Your task to perform on an android device: turn pop-ups on in chrome Image 0: 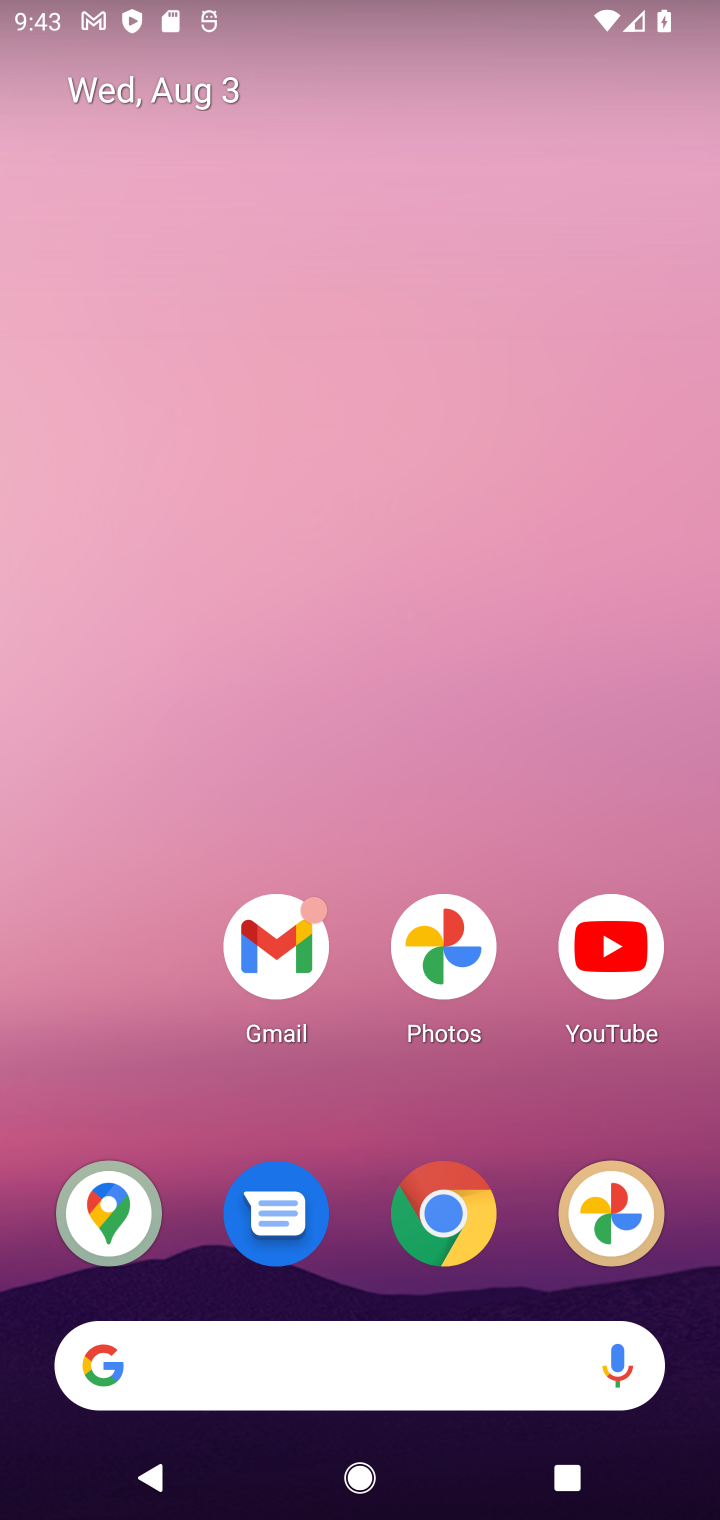
Step 0: click (457, 1229)
Your task to perform on an android device: turn pop-ups on in chrome Image 1: 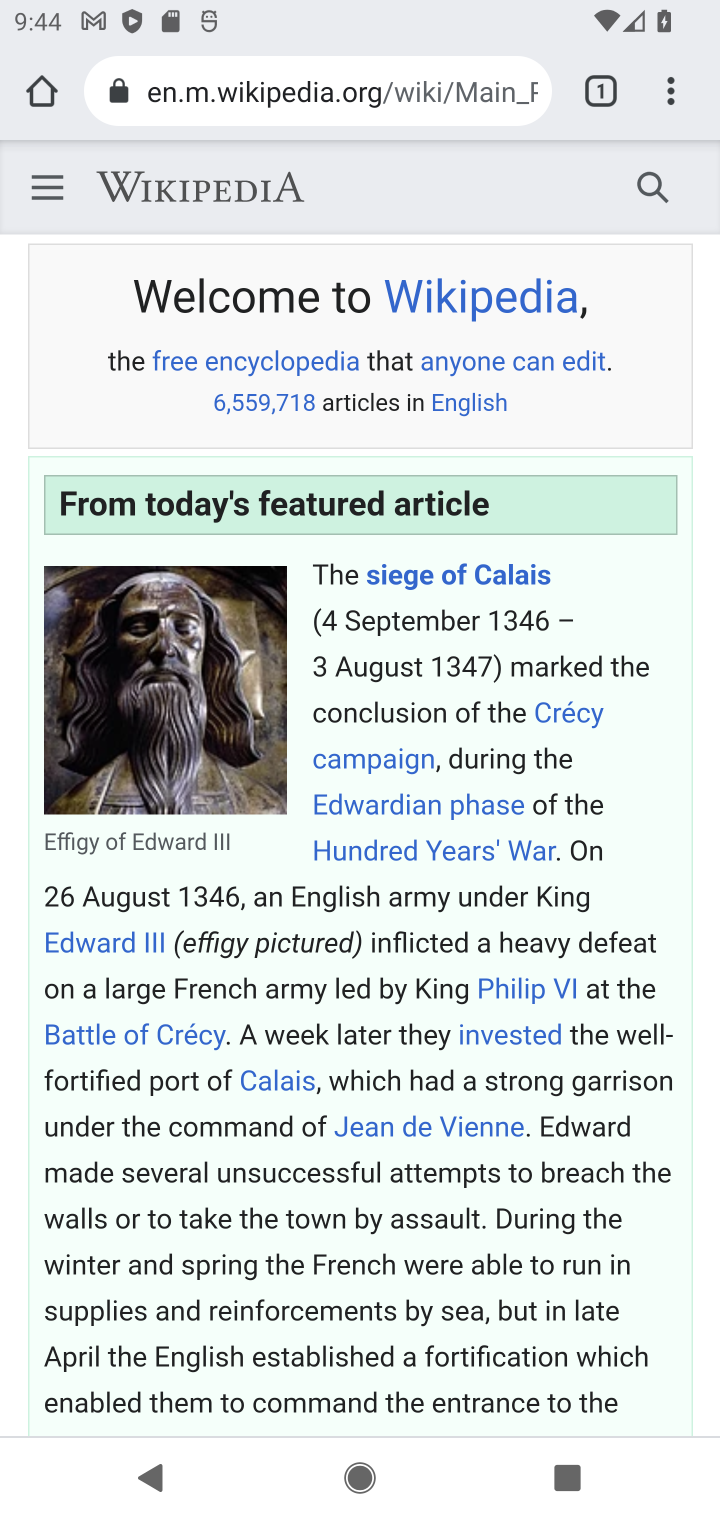
Step 1: click (668, 91)
Your task to perform on an android device: turn pop-ups on in chrome Image 2: 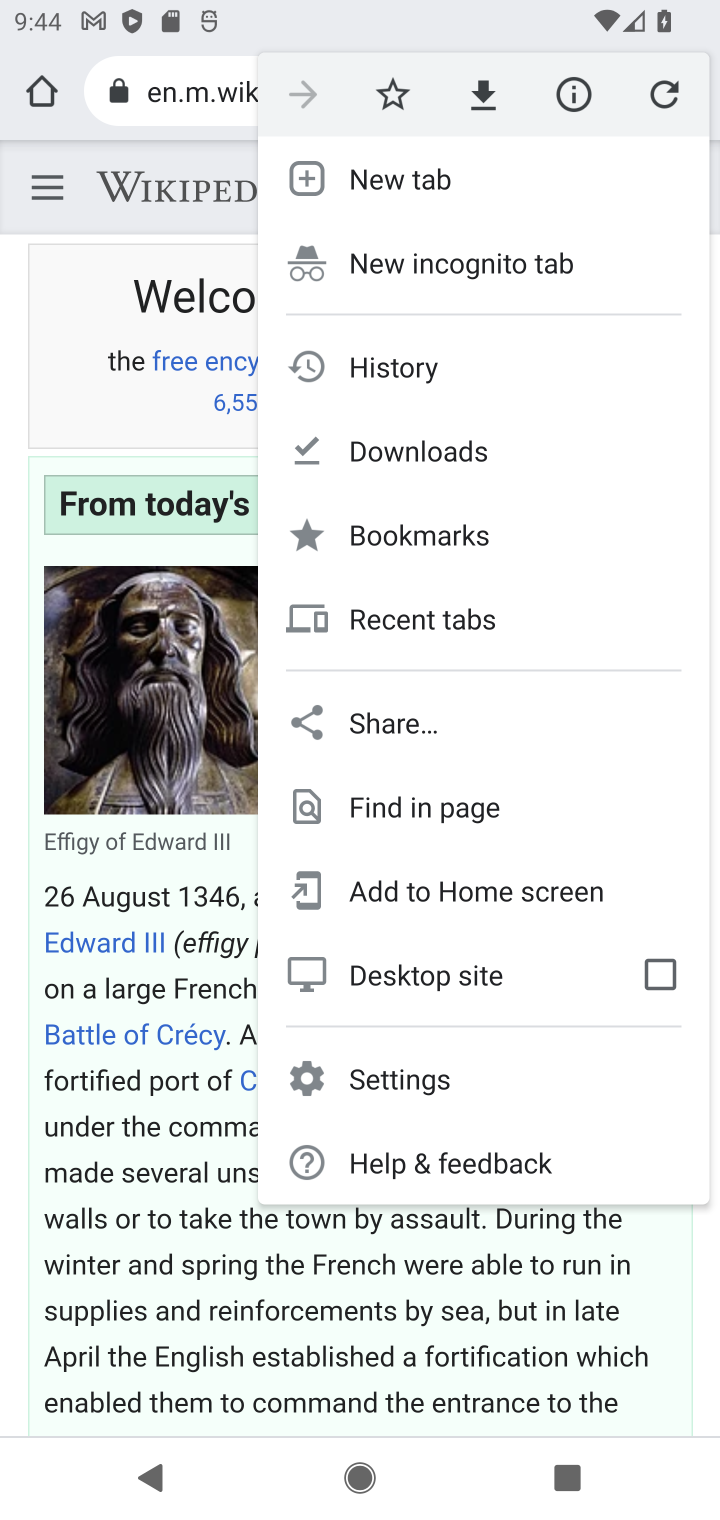
Step 2: click (401, 1056)
Your task to perform on an android device: turn pop-ups on in chrome Image 3: 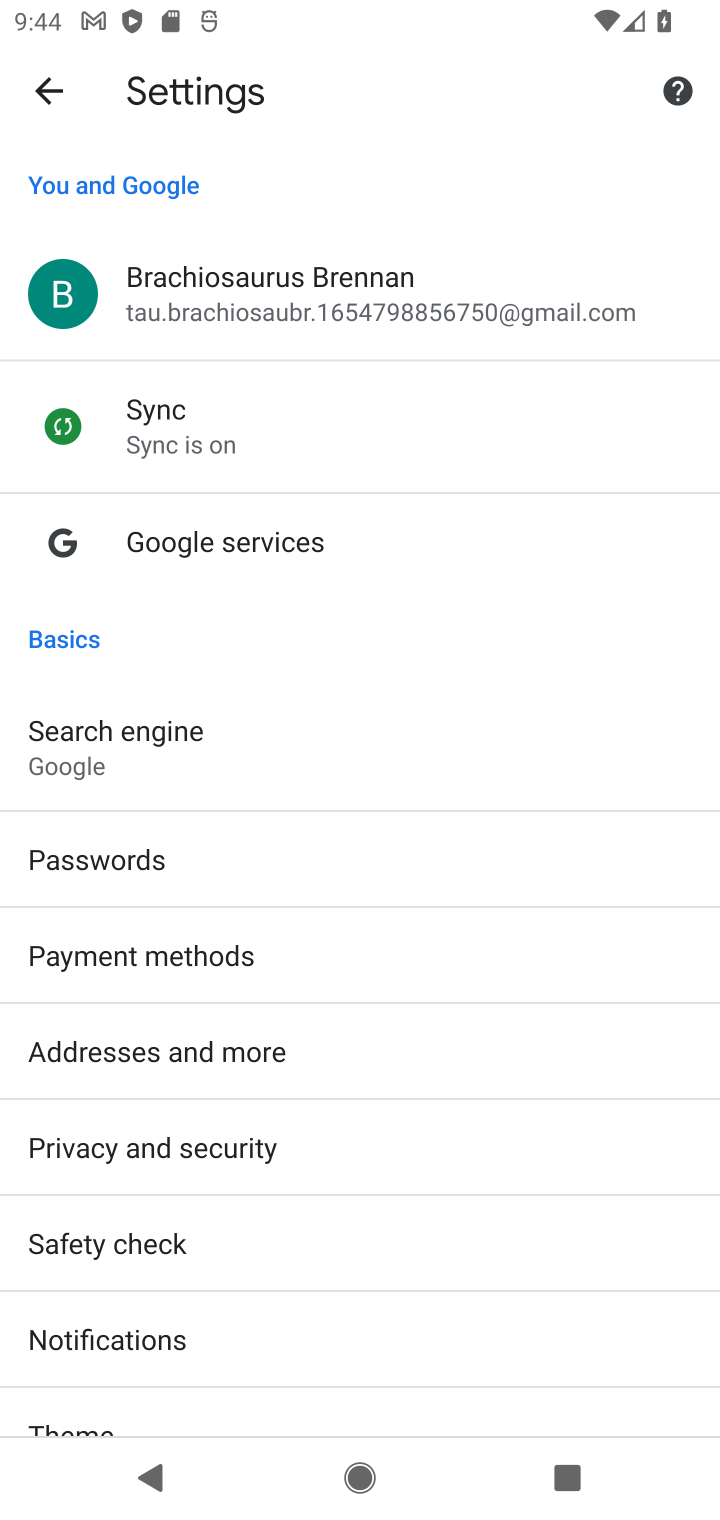
Step 3: drag from (214, 1109) to (140, 616)
Your task to perform on an android device: turn pop-ups on in chrome Image 4: 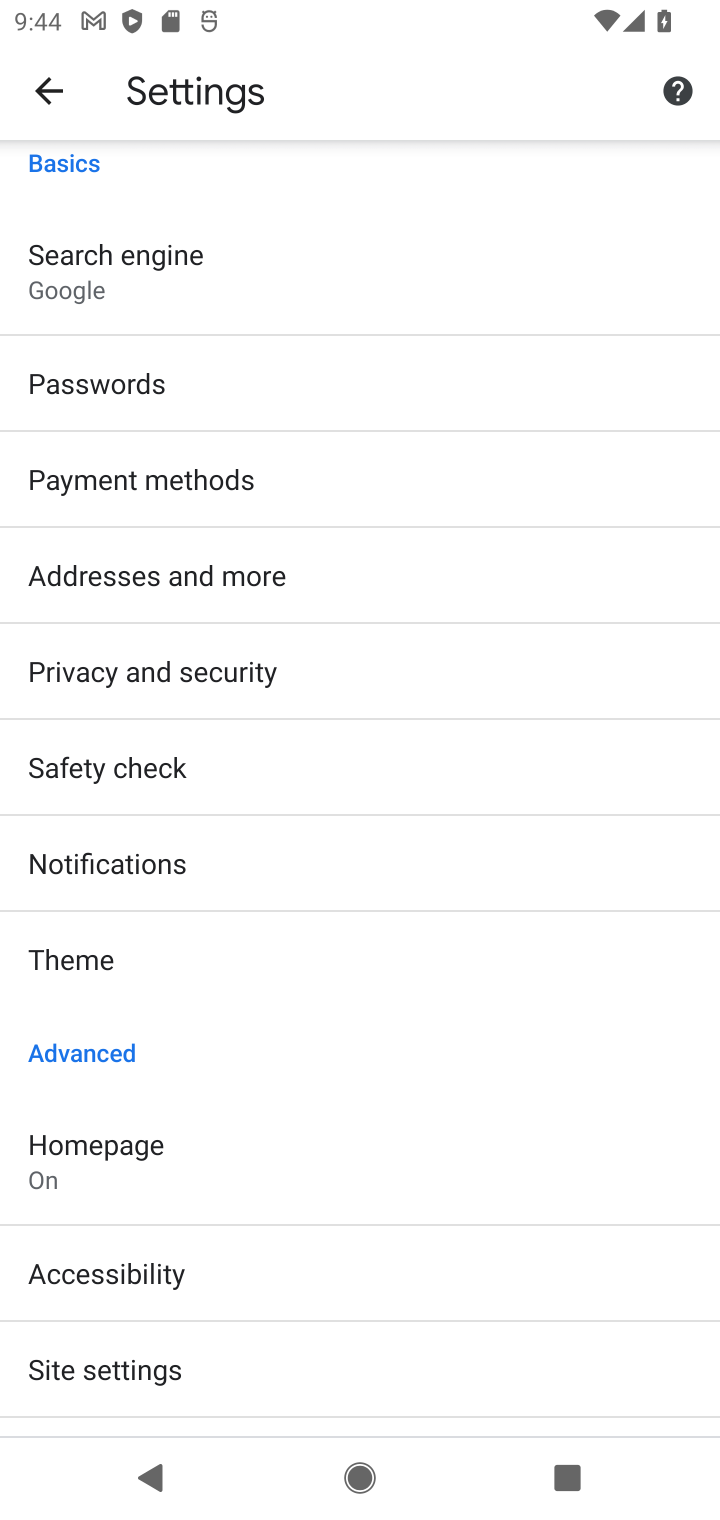
Step 4: click (179, 1372)
Your task to perform on an android device: turn pop-ups on in chrome Image 5: 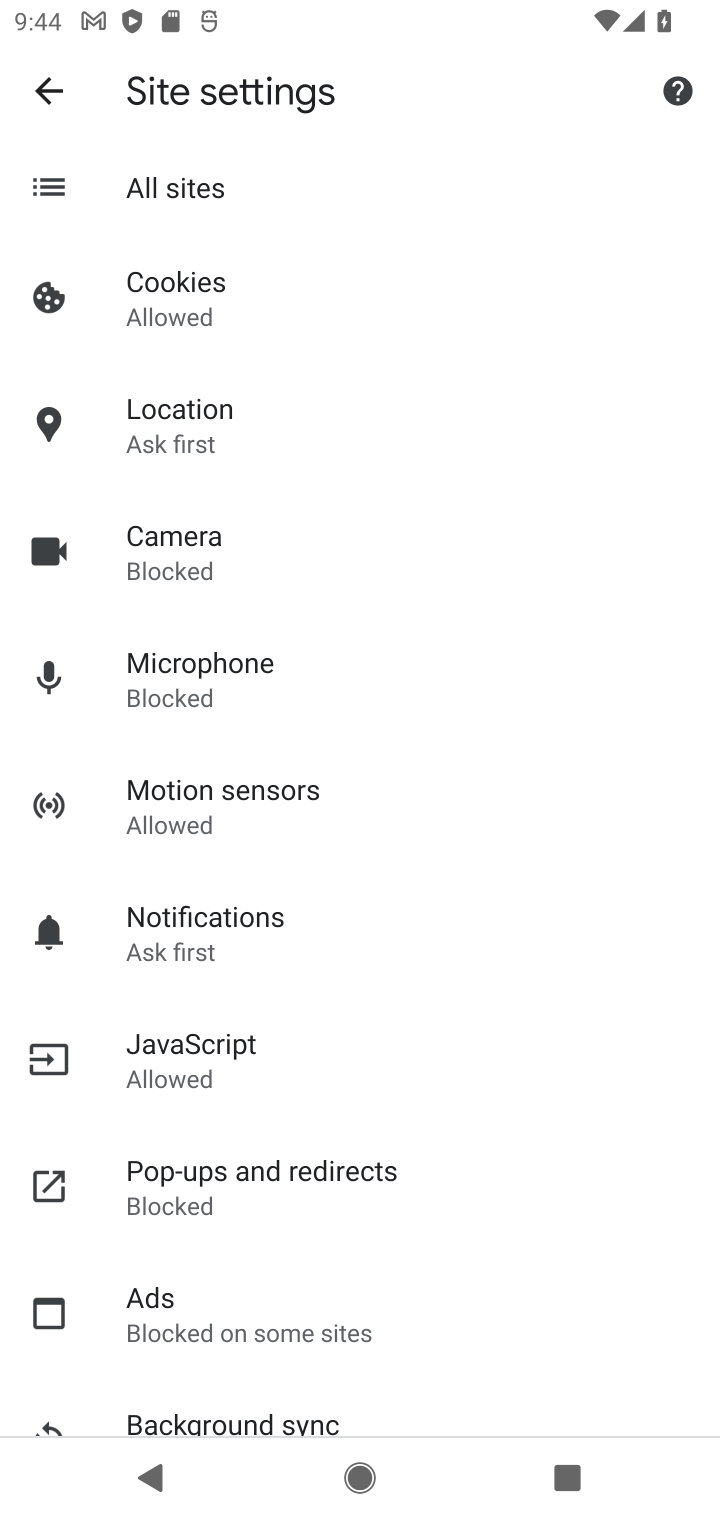
Step 5: click (207, 1165)
Your task to perform on an android device: turn pop-ups on in chrome Image 6: 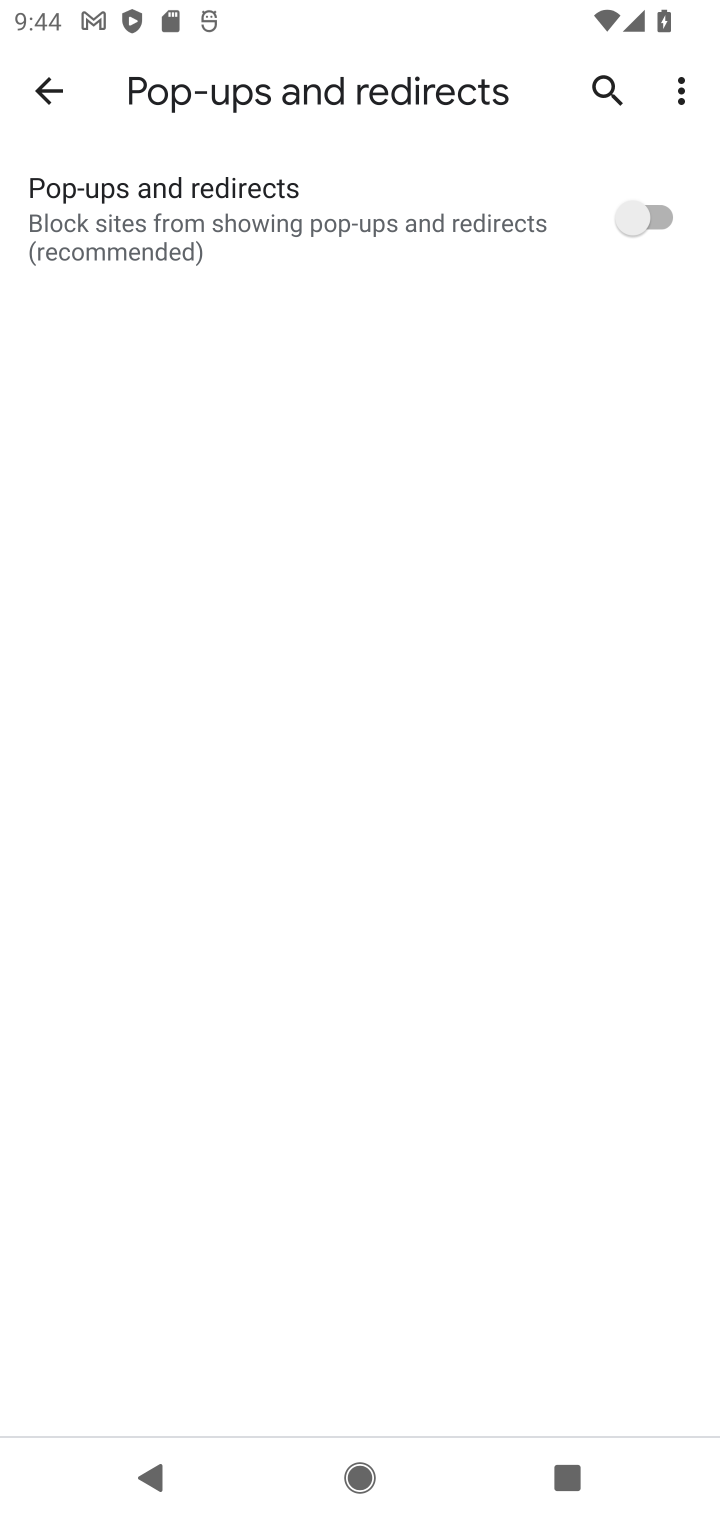
Step 6: click (640, 223)
Your task to perform on an android device: turn pop-ups on in chrome Image 7: 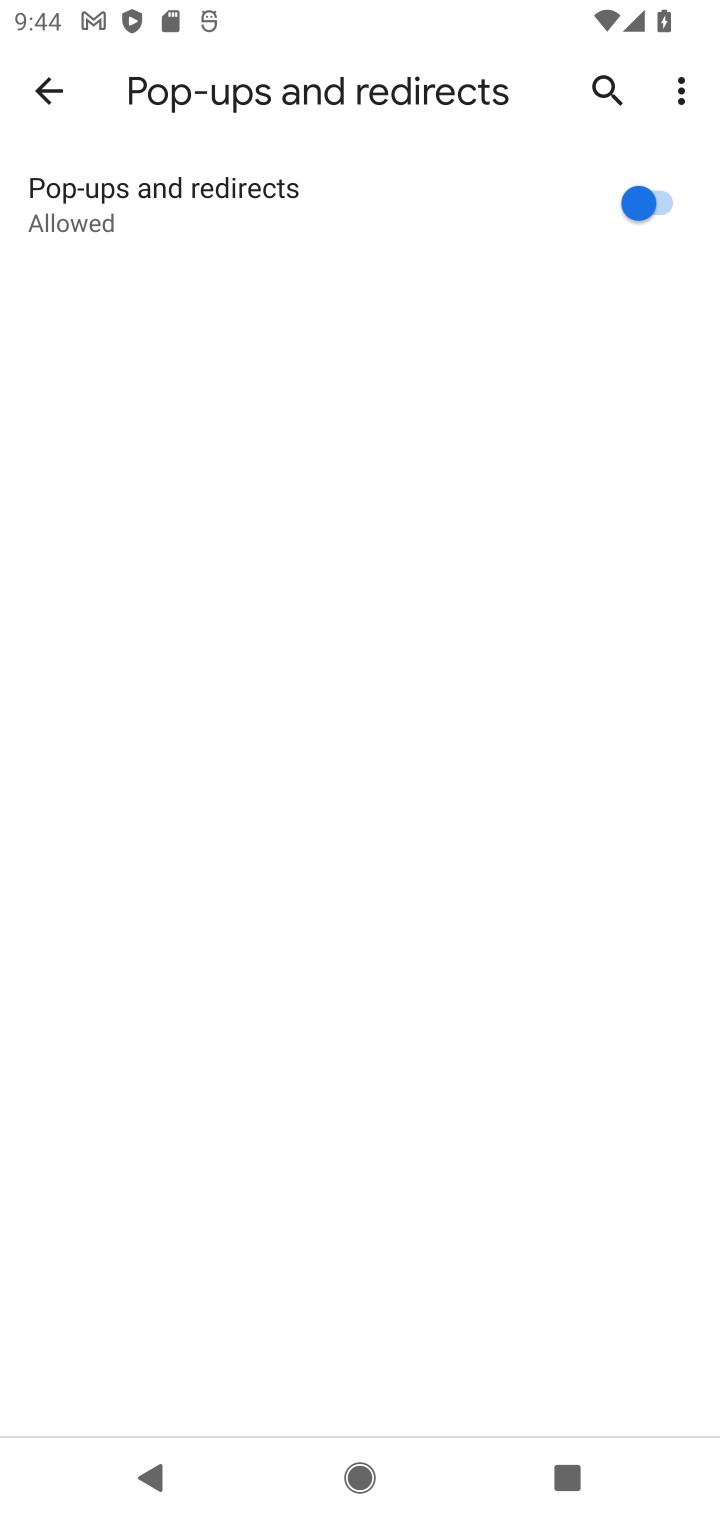
Step 7: task complete